Your task to perform on an android device: Open settings Image 0: 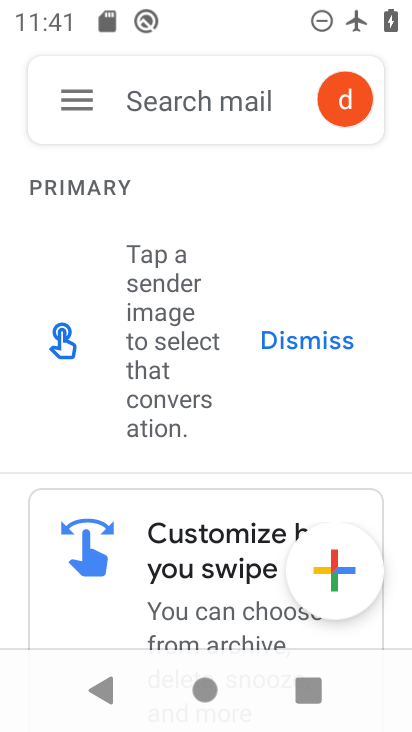
Step 0: press home button
Your task to perform on an android device: Open settings Image 1: 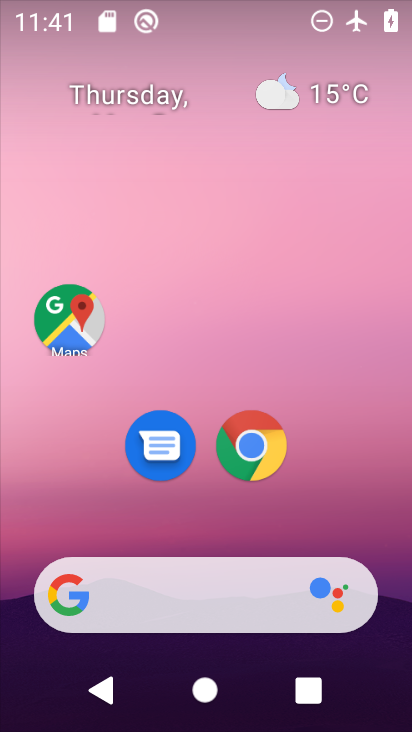
Step 1: drag from (212, 475) to (221, 2)
Your task to perform on an android device: Open settings Image 2: 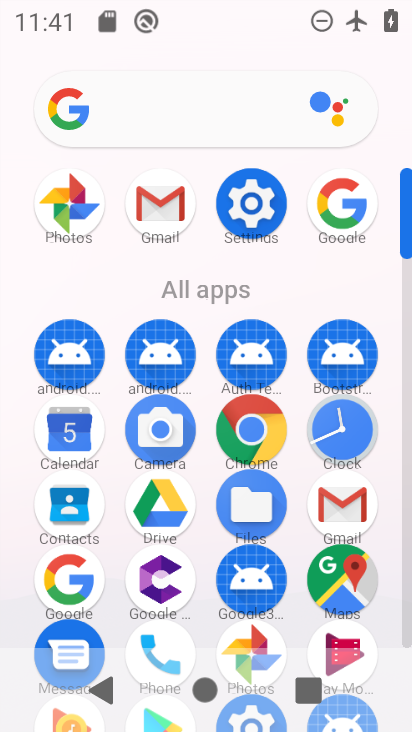
Step 2: click (249, 251)
Your task to perform on an android device: Open settings Image 3: 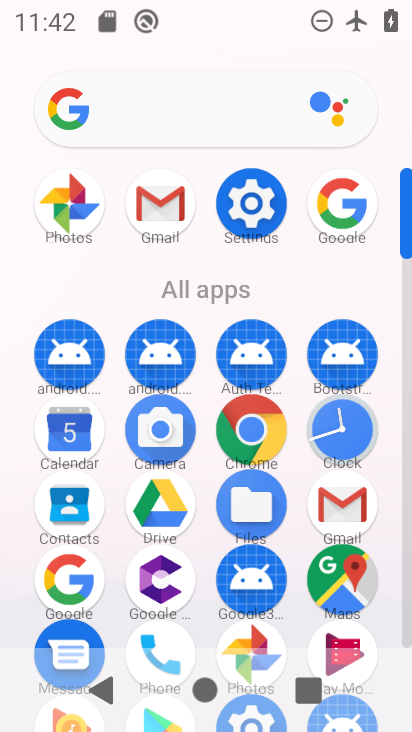
Step 3: click (260, 212)
Your task to perform on an android device: Open settings Image 4: 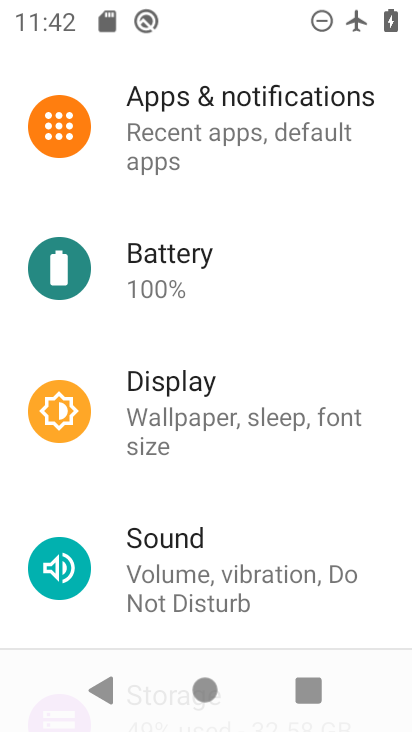
Step 4: task complete